Your task to perform on an android device: Go to calendar. Show me events next week Image 0: 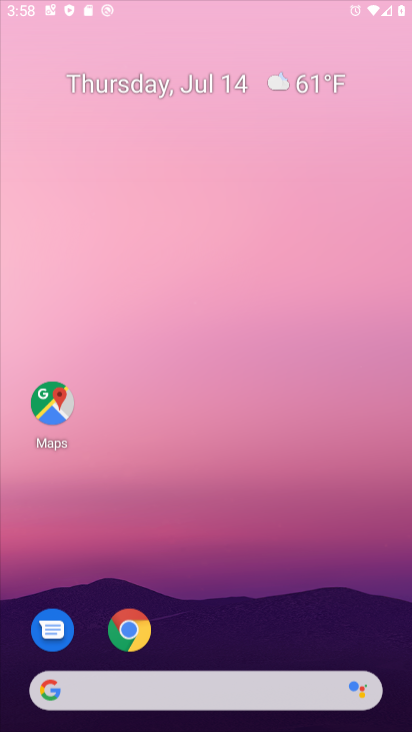
Step 0: drag from (246, 203) to (223, 40)
Your task to perform on an android device: Go to calendar. Show me events next week Image 1: 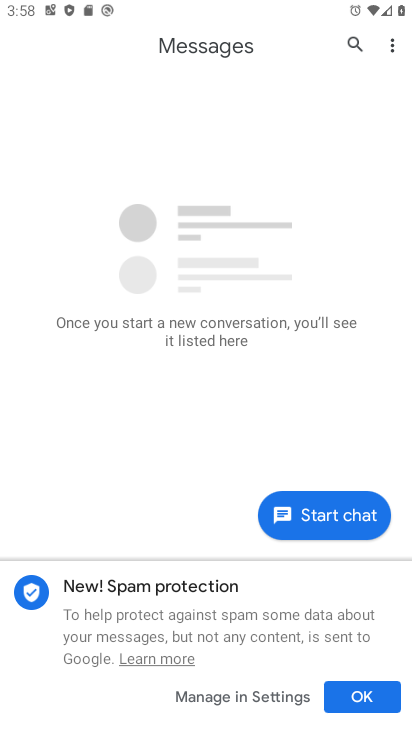
Step 1: press home button
Your task to perform on an android device: Go to calendar. Show me events next week Image 2: 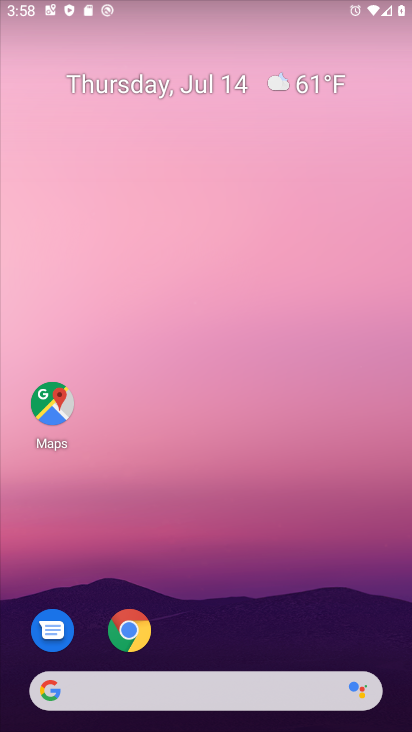
Step 2: drag from (301, 558) to (282, 11)
Your task to perform on an android device: Go to calendar. Show me events next week Image 3: 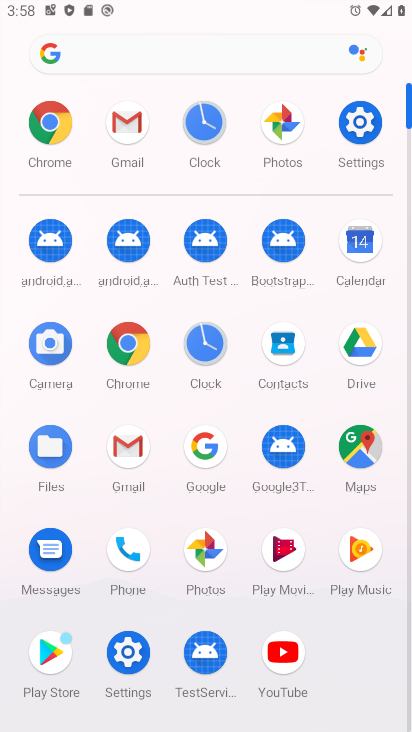
Step 3: click (363, 249)
Your task to perform on an android device: Go to calendar. Show me events next week Image 4: 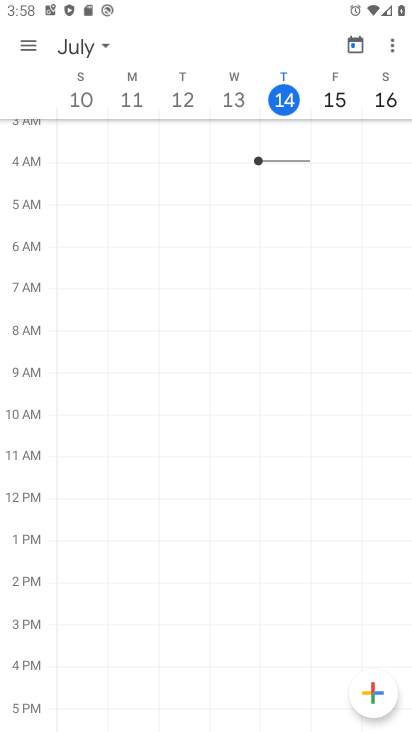
Step 4: click (83, 46)
Your task to perform on an android device: Go to calendar. Show me events next week Image 5: 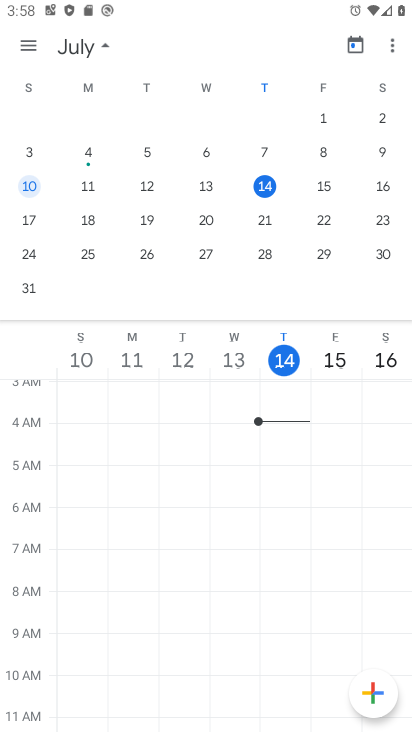
Step 5: click (261, 220)
Your task to perform on an android device: Go to calendar. Show me events next week Image 6: 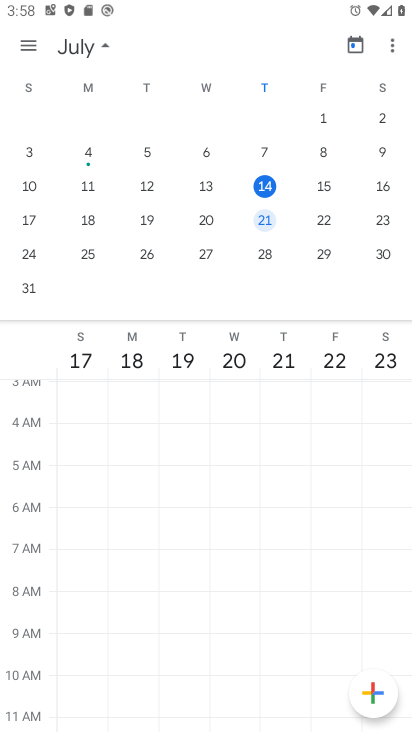
Step 6: task complete